Your task to perform on an android device: refresh tabs in the chrome app Image 0: 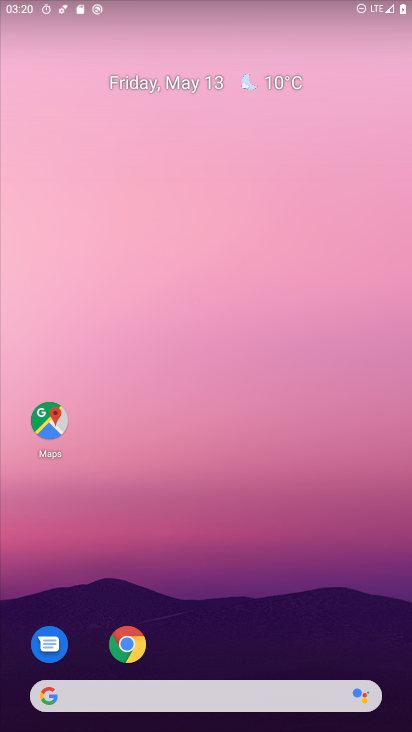
Step 0: drag from (234, 640) to (254, 26)
Your task to perform on an android device: refresh tabs in the chrome app Image 1: 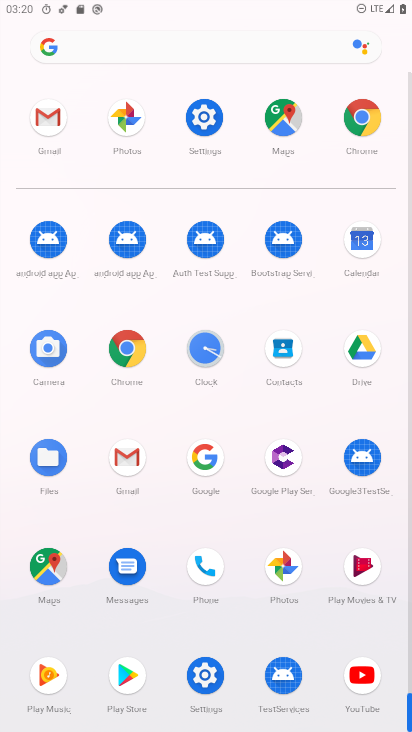
Step 1: click (126, 357)
Your task to perform on an android device: refresh tabs in the chrome app Image 2: 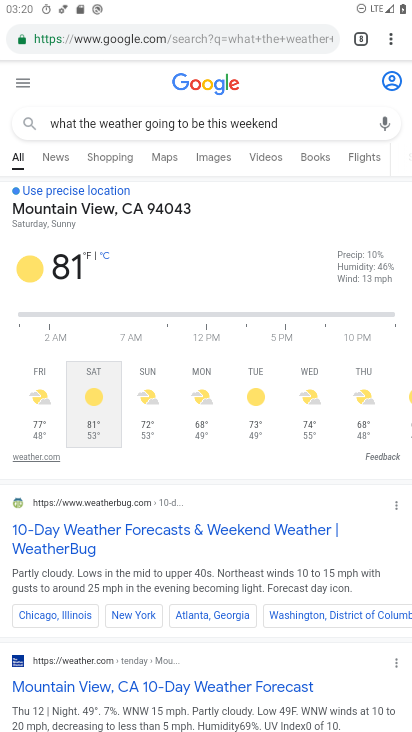
Step 2: click (386, 36)
Your task to perform on an android device: refresh tabs in the chrome app Image 3: 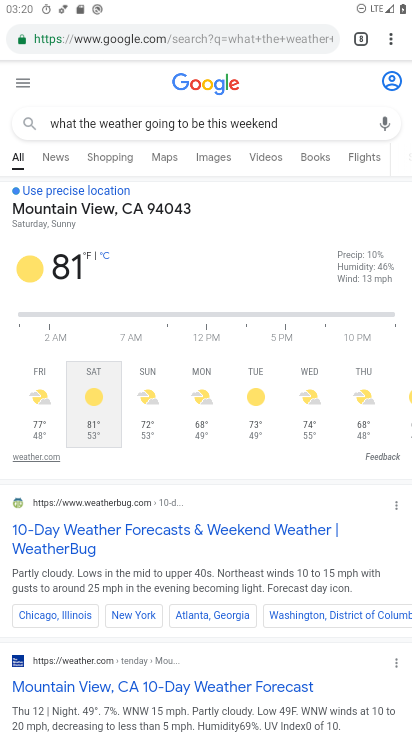
Step 3: task complete